Your task to perform on an android device: When is my next appointment? Image 0: 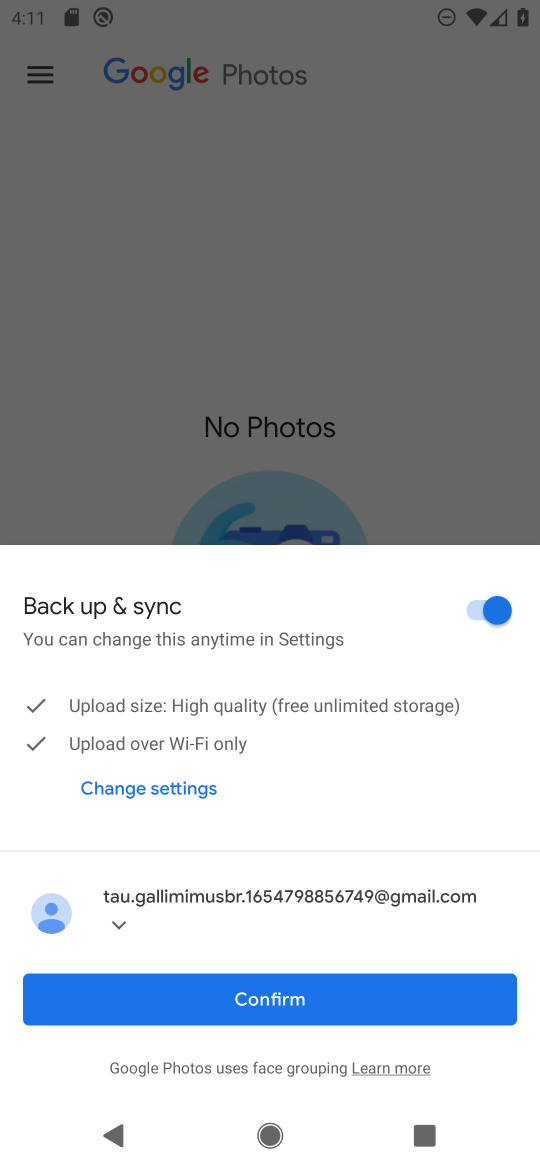
Step 0: press back button
Your task to perform on an android device: When is my next appointment? Image 1: 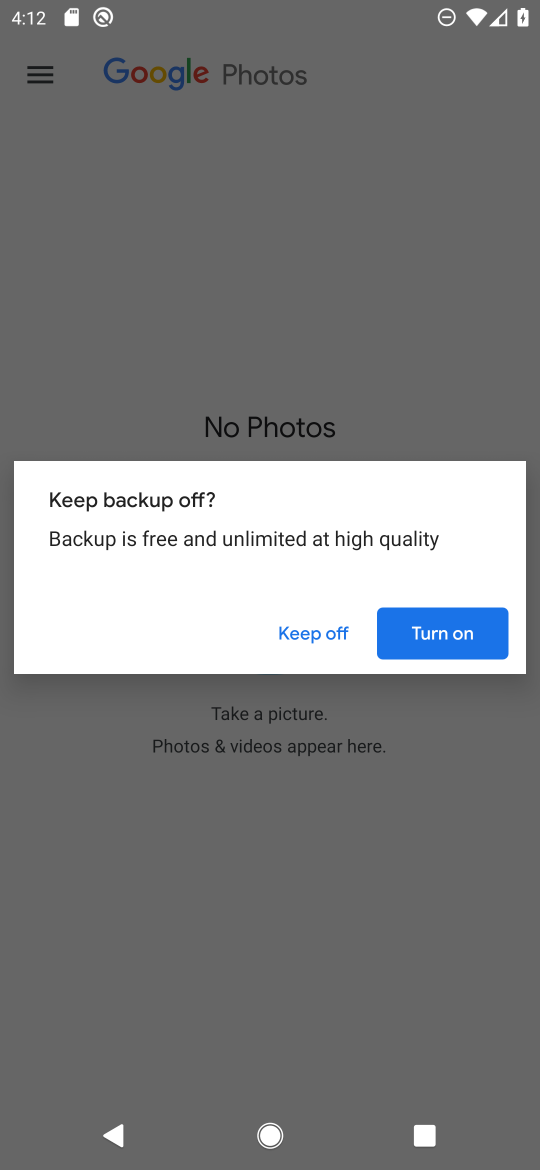
Step 1: press home button
Your task to perform on an android device: When is my next appointment? Image 2: 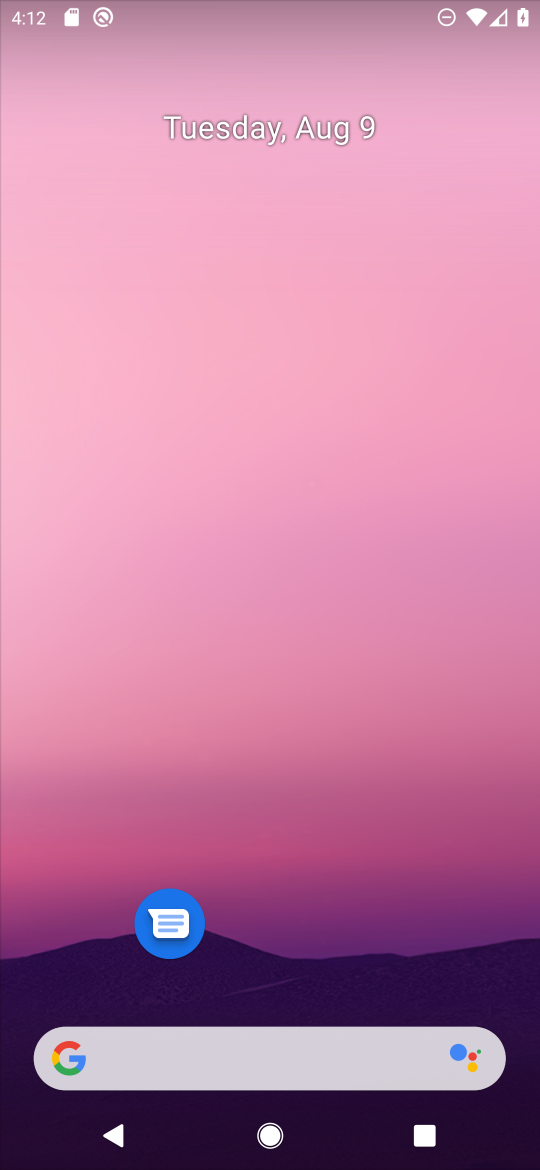
Step 2: drag from (329, 852) to (441, 13)
Your task to perform on an android device: When is my next appointment? Image 3: 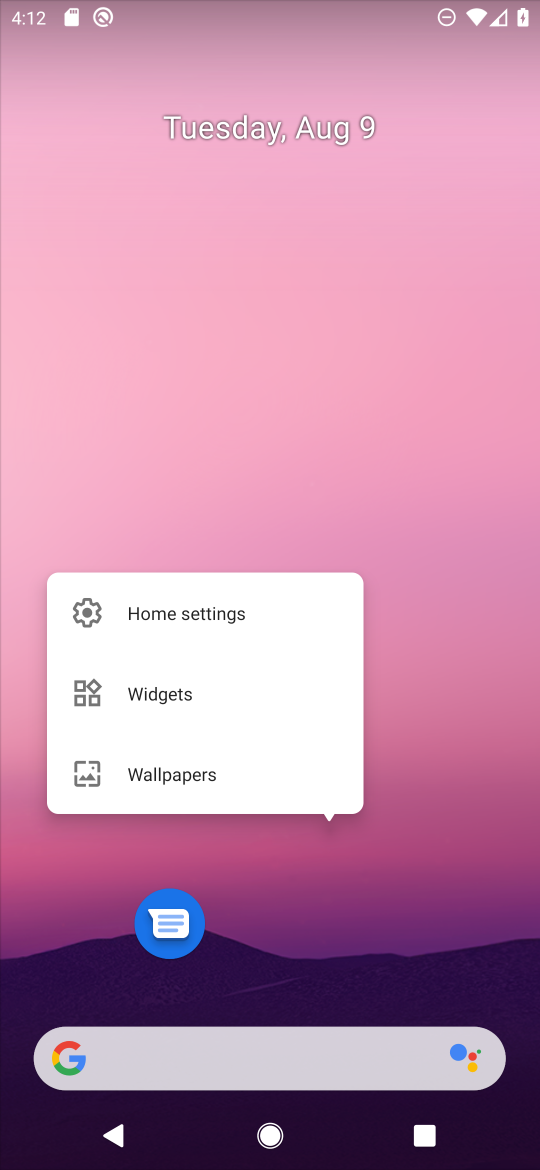
Step 3: click (414, 895)
Your task to perform on an android device: When is my next appointment? Image 4: 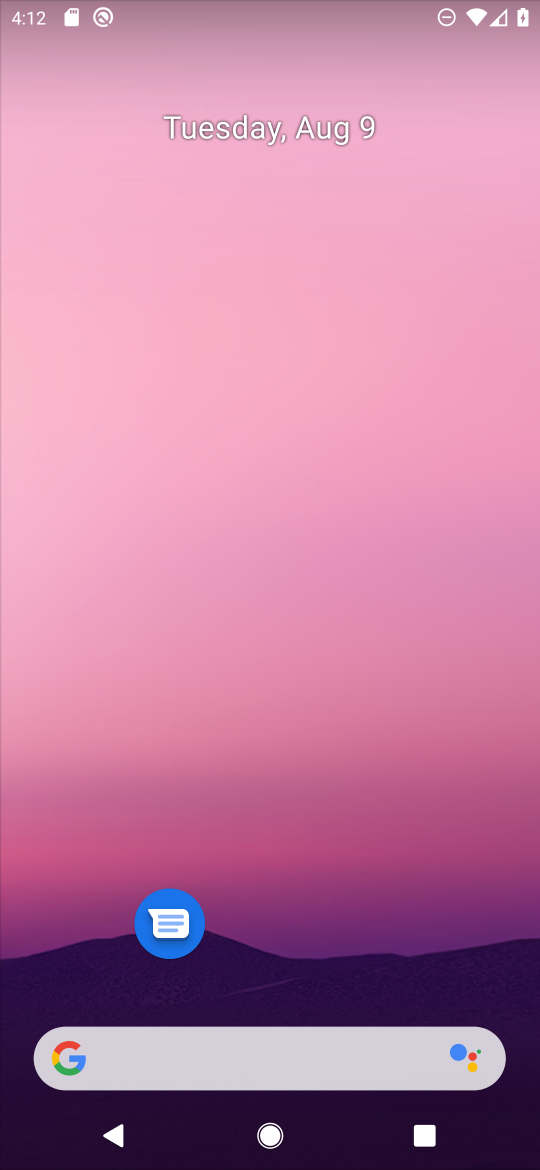
Step 4: drag from (323, 944) to (401, 4)
Your task to perform on an android device: When is my next appointment? Image 5: 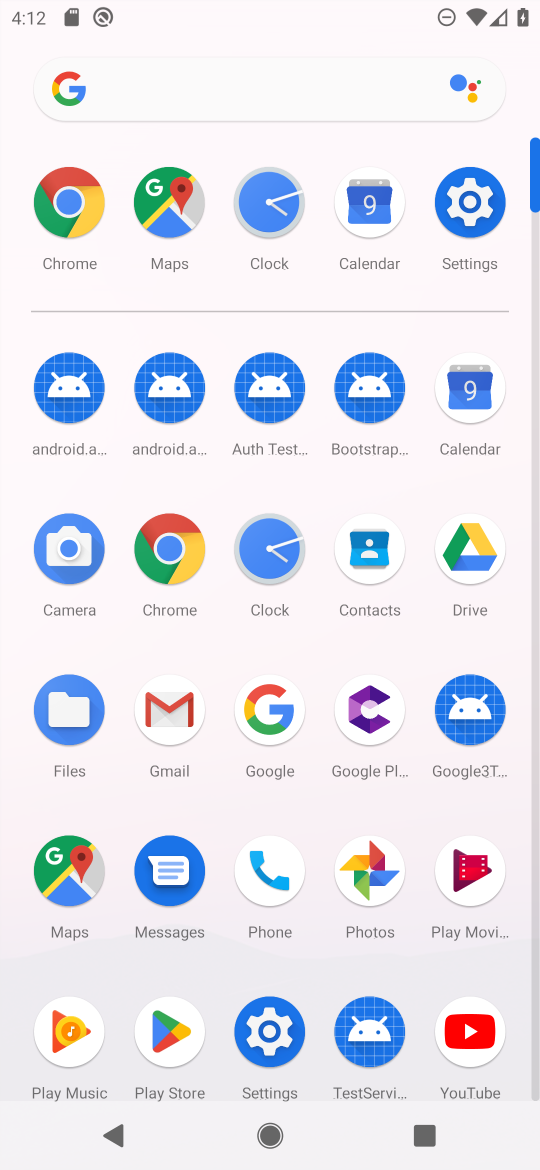
Step 5: click (368, 214)
Your task to perform on an android device: When is my next appointment? Image 6: 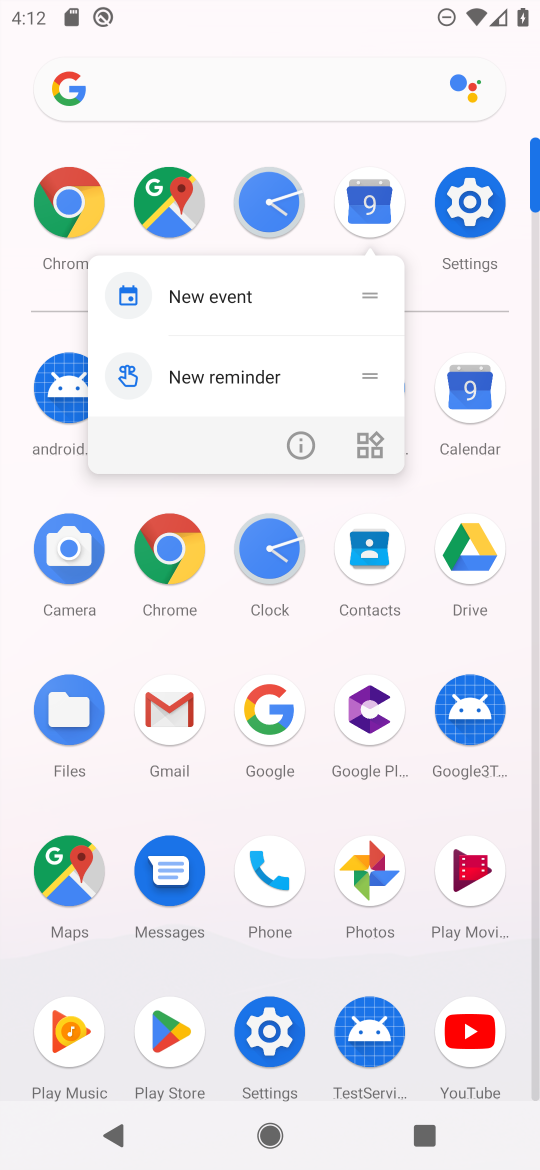
Step 6: click (368, 214)
Your task to perform on an android device: When is my next appointment? Image 7: 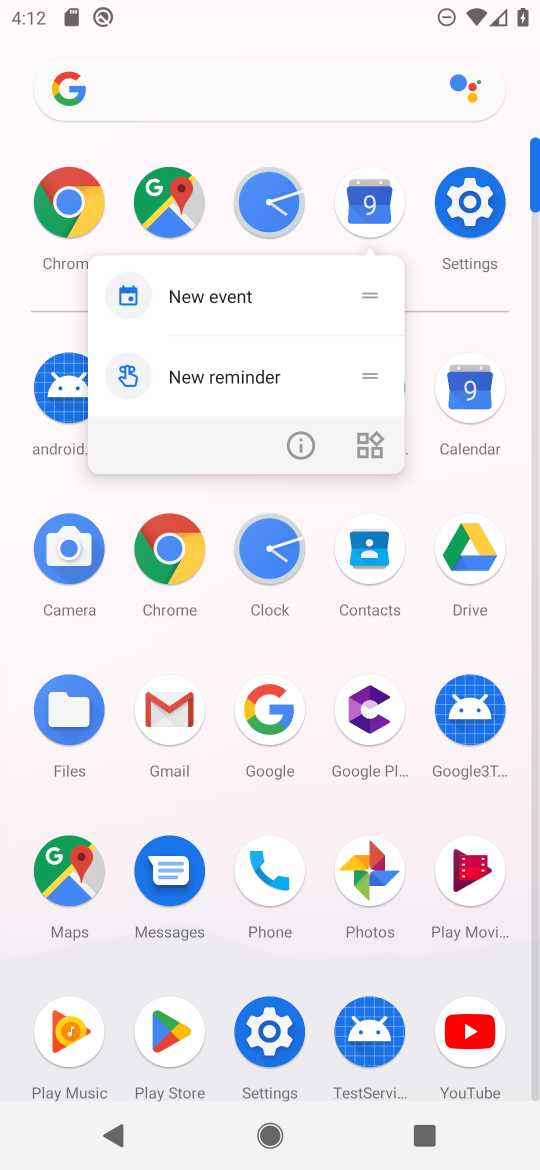
Step 7: click (356, 196)
Your task to perform on an android device: When is my next appointment? Image 8: 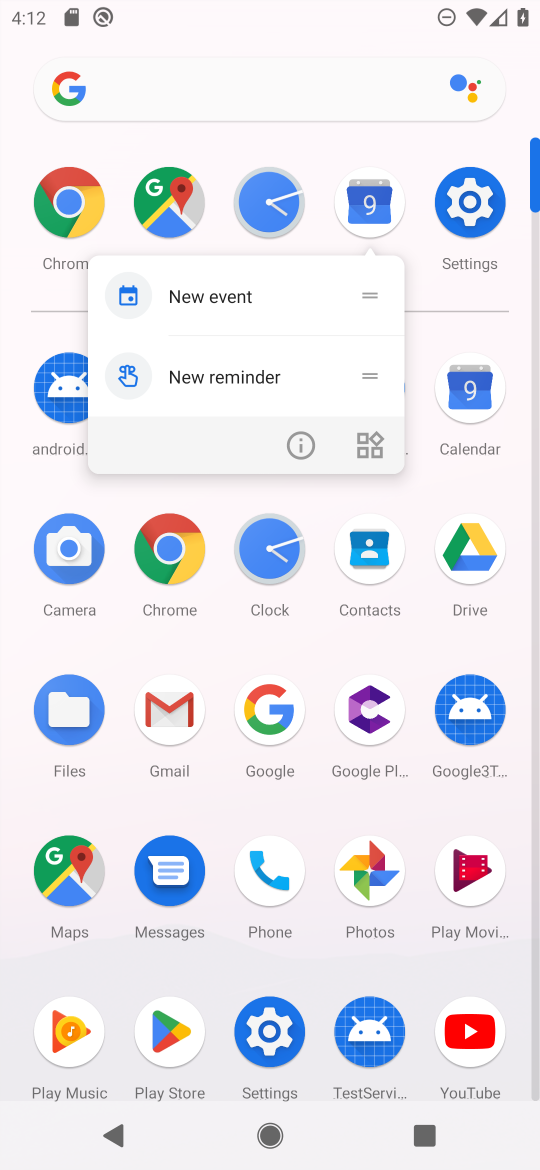
Step 8: click (374, 204)
Your task to perform on an android device: When is my next appointment? Image 9: 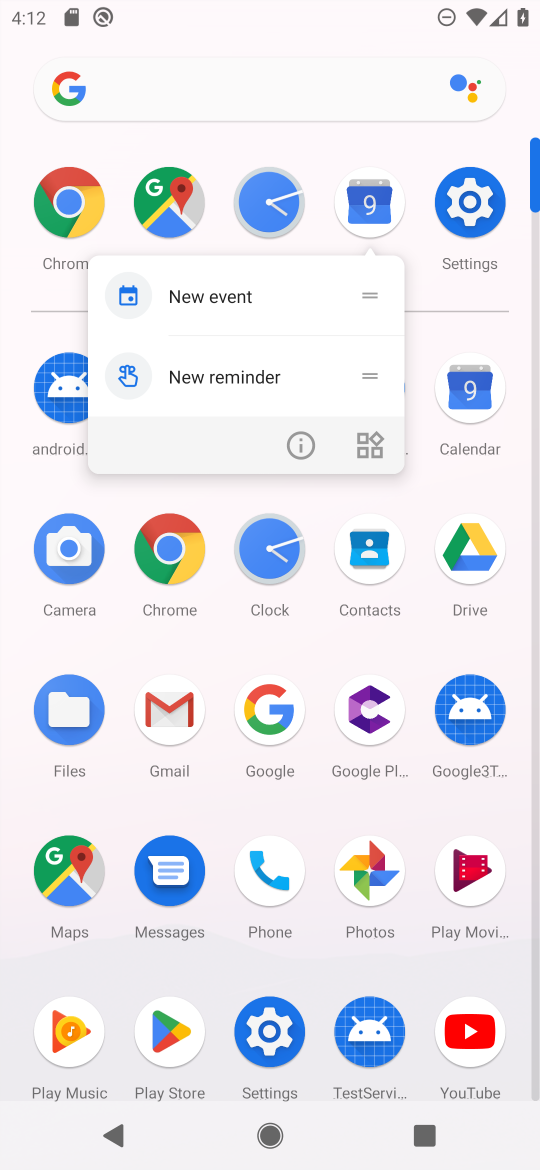
Step 9: click (369, 205)
Your task to perform on an android device: When is my next appointment? Image 10: 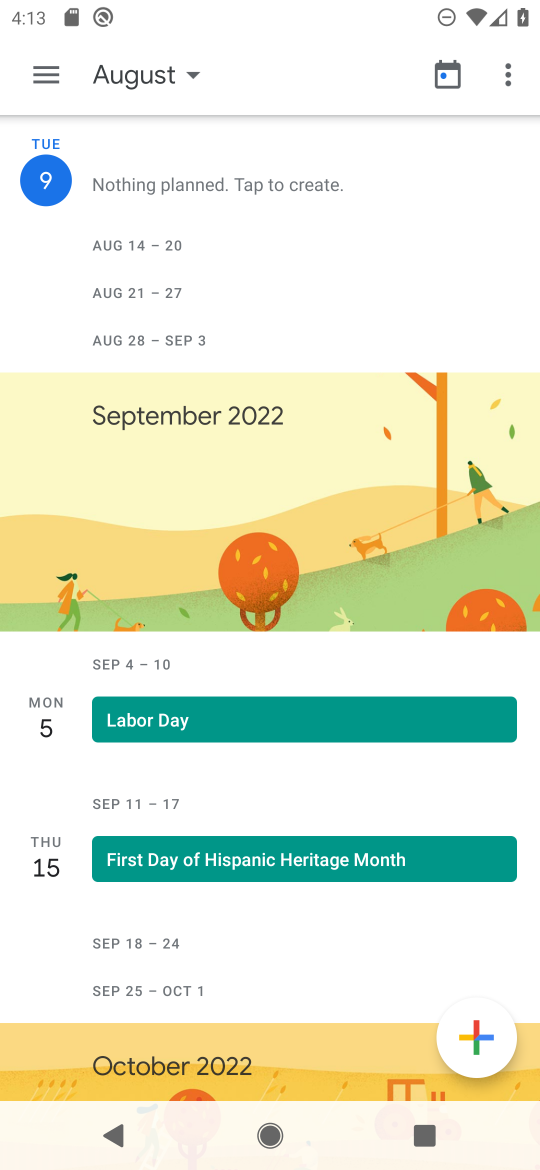
Step 10: task complete